Your task to perform on an android device: check battery use Image 0: 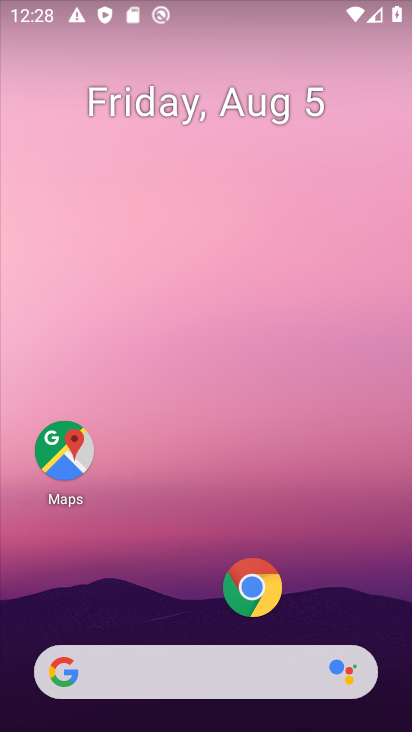
Step 0: drag from (120, 707) to (213, 154)
Your task to perform on an android device: check battery use Image 1: 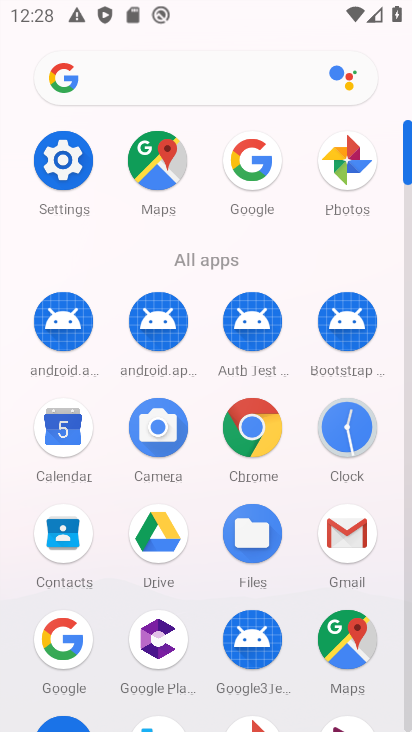
Step 1: click (68, 180)
Your task to perform on an android device: check battery use Image 2: 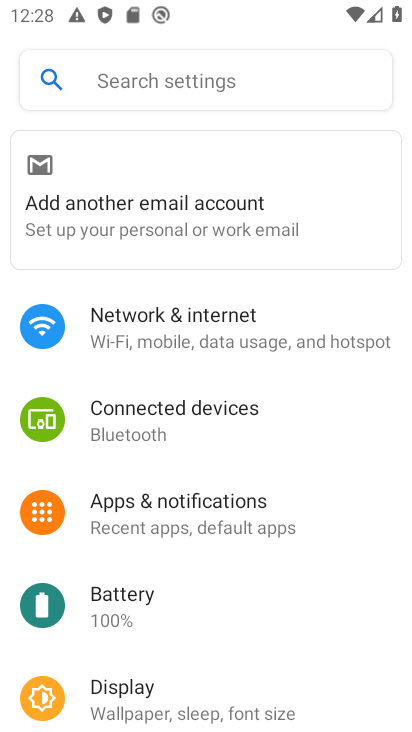
Step 2: click (156, 616)
Your task to perform on an android device: check battery use Image 3: 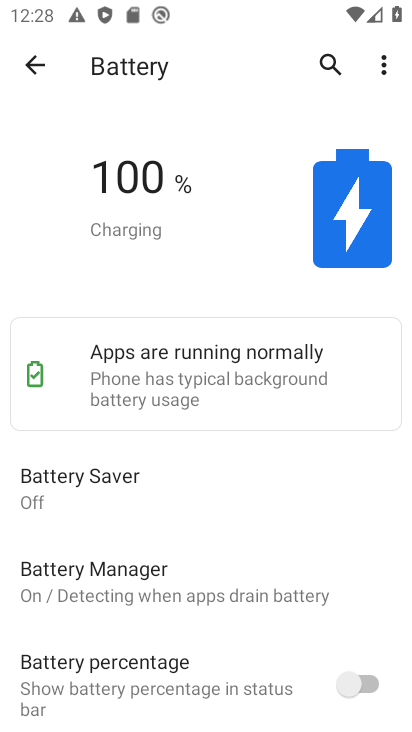
Step 3: click (385, 60)
Your task to perform on an android device: check battery use Image 4: 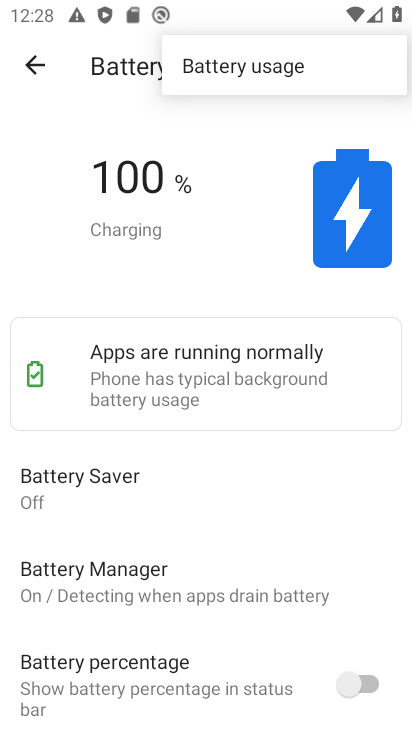
Step 4: click (350, 63)
Your task to perform on an android device: check battery use Image 5: 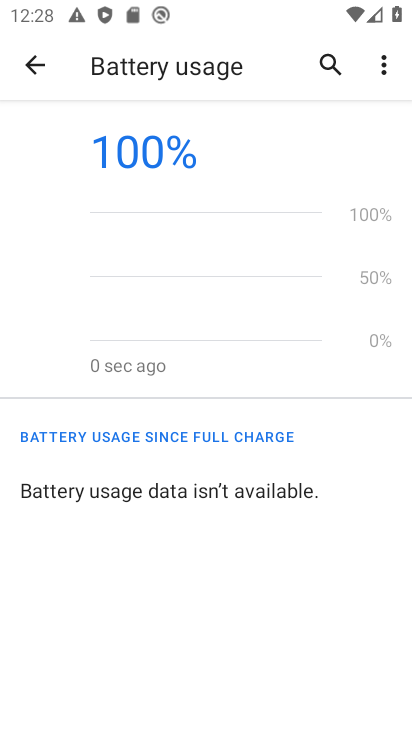
Step 5: task complete